Your task to perform on an android device: Open settings on Google Maps Image 0: 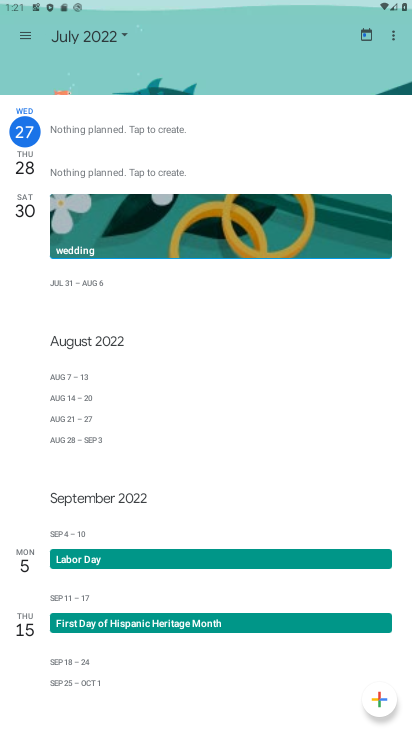
Step 0: press home button
Your task to perform on an android device: Open settings on Google Maps Image 1: 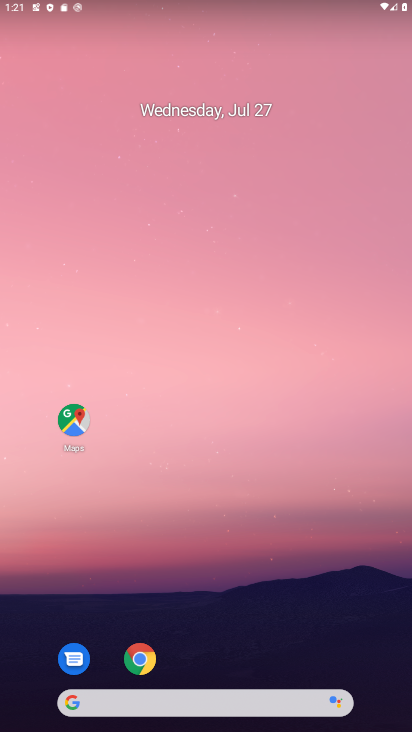
Step 1: drag from (293, 583) to (226, 1)
Your task to perform on an android device: Open settings on Google Maps Image 2: 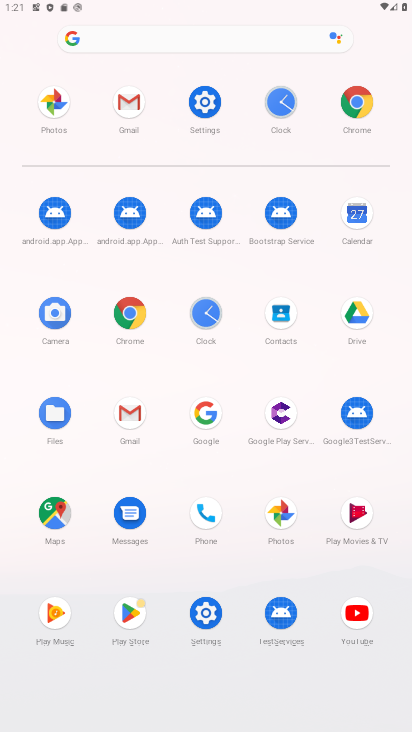
Step 2: click (57, 523)
Your task to perform on an android device: Open settings on Google Maps Image 3: 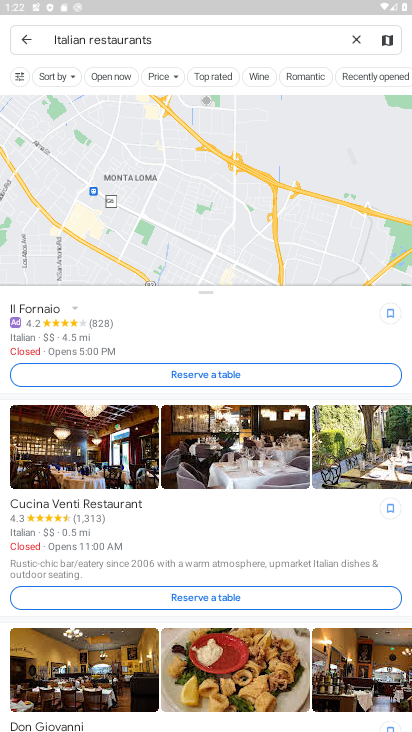
Step 3: click (33, 35)
Your task to perform on an android device: Open settings on Google Maps Image 4: 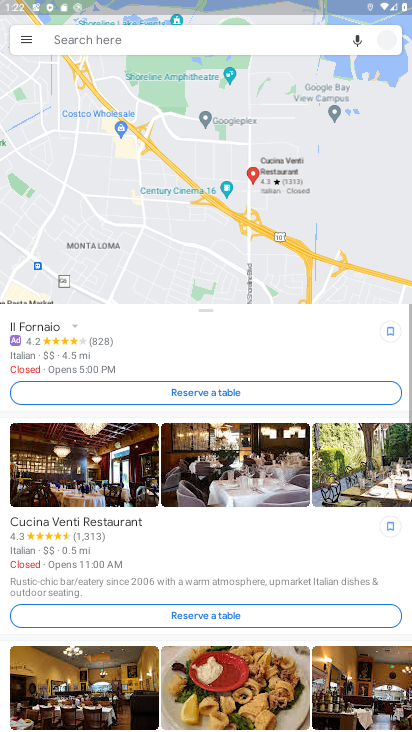
Step 4: click (26, 38)
Your task to perform on an android device: Open settings on Google Maps Image 5: 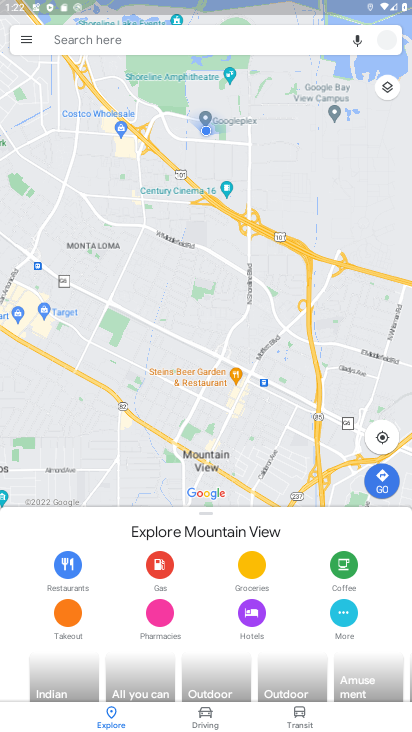
Step 5: click (27, 39)
Your task to perform on an android device: Open settings on Google Maps Image 6: 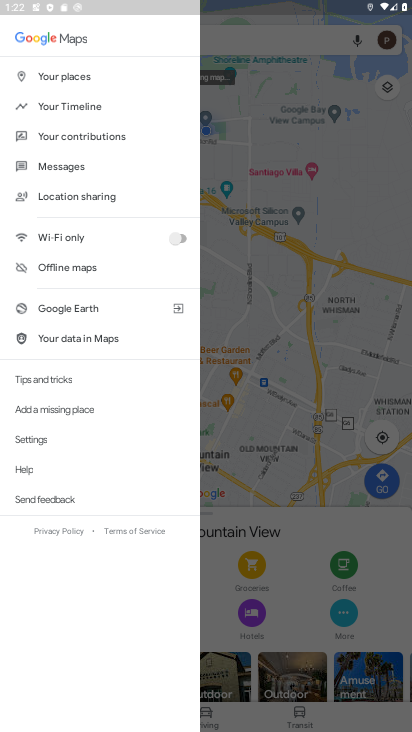
Step 6: click (41, 437)
Your task to perform on an android device: Open settings on Google Maps Image 7: 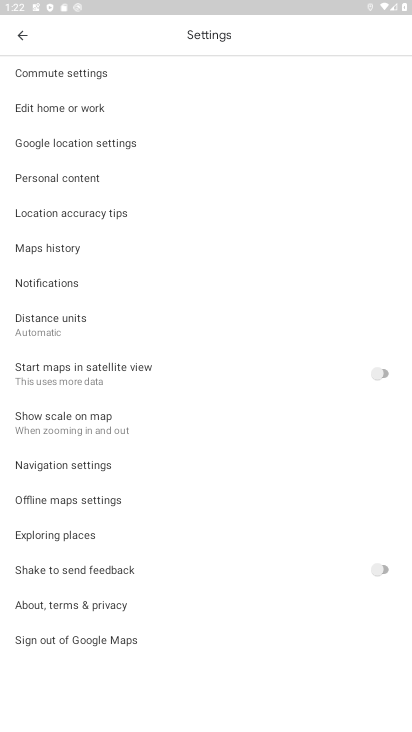
Step 7: task complete